Your task to perform on an android device: turn on translation in the chrome app Image 0: 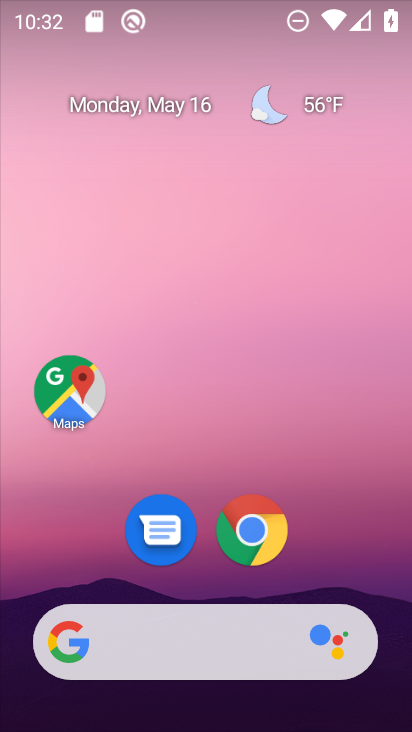
Step 0: click (277, 528)
Your task to perform on an android device: turn on translation in the chrome app Image 1: 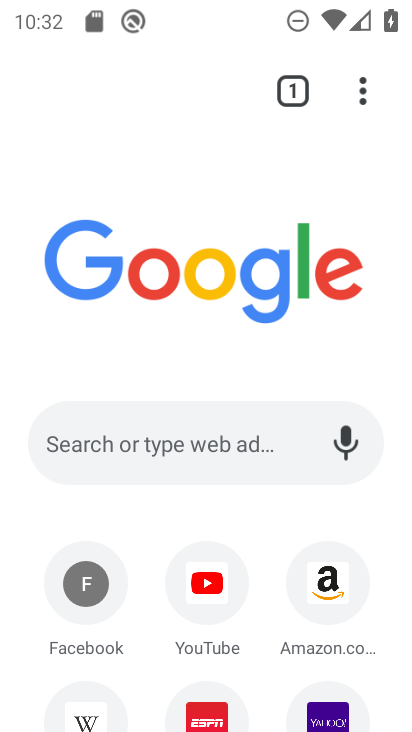
Step 1: click (366, 97)
Your task to perform on an android device: turn on translation in the chrome app Image 2: 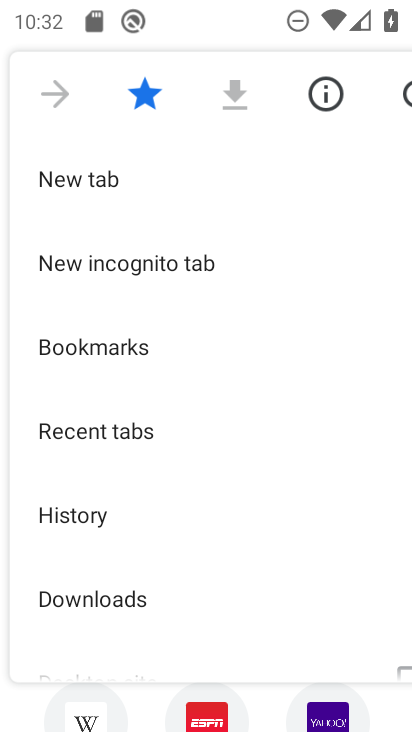
Step 2: drag from (132, 565) to (136, 136)
Your task to perform on an android device: turn on translation in the chrome app Image 3: 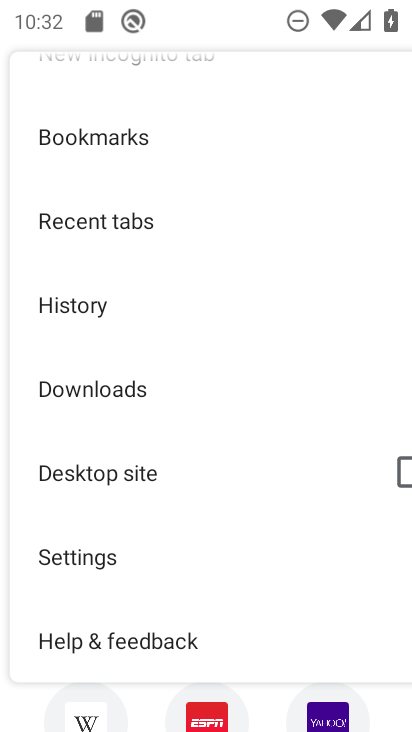
Step 3: click (100, 551)
Your task to perform on an android device: turn on translation in the chrome app Image 4: 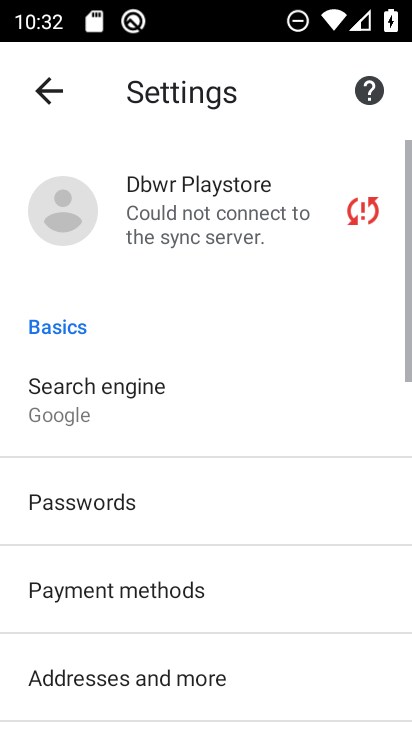
Step 4: drag from (139, 608) to (138, 46)
Your task to perform on an android device: turn on translation in the chrome app Image 5: 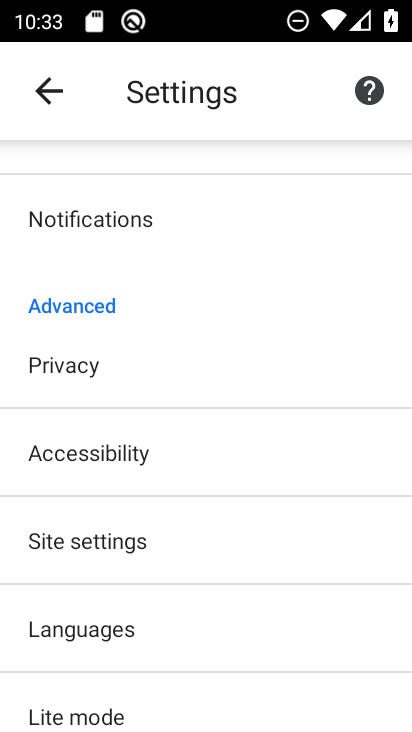
Step 5: click (138, 646)
Your task to perform on an android device: turn on translation in the chrome app Image 6: 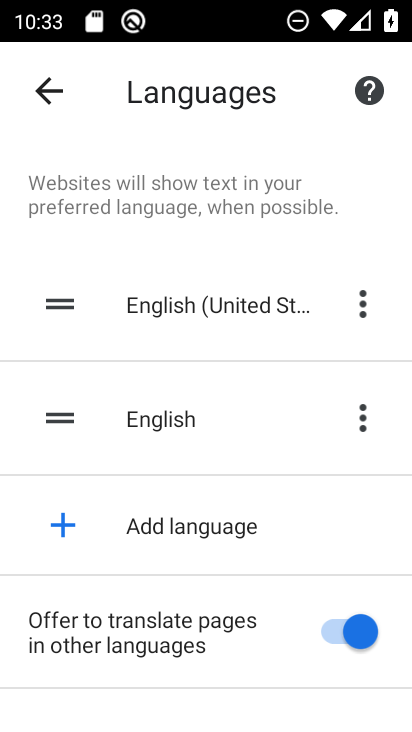
Step 6: task complete